Your task to perform on an android device: turn off sleep mode Image 0: 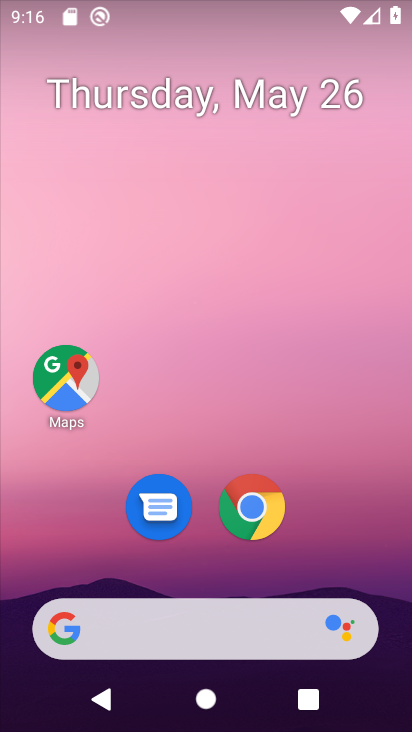
Step 0: drag from (363, 577) to (361, 279)
Your task to perform on an android device: turn off sleep mode Image 1: 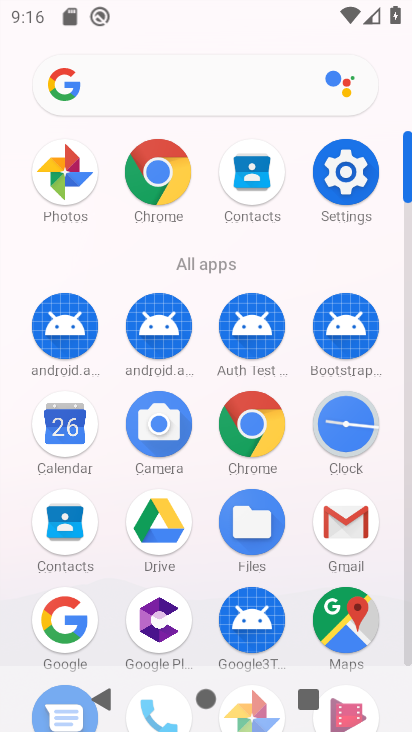
Step 1: click (355, 192)
Your task to perform on an android device: turn off sleep mode Image 2: 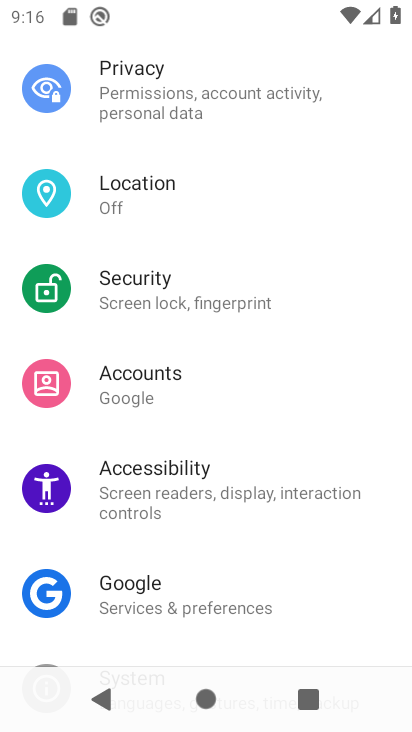
Step 2: drag from (355, 227) to (357, 362)
Your task to perform on an android device: turn off sleep mode Image 3: 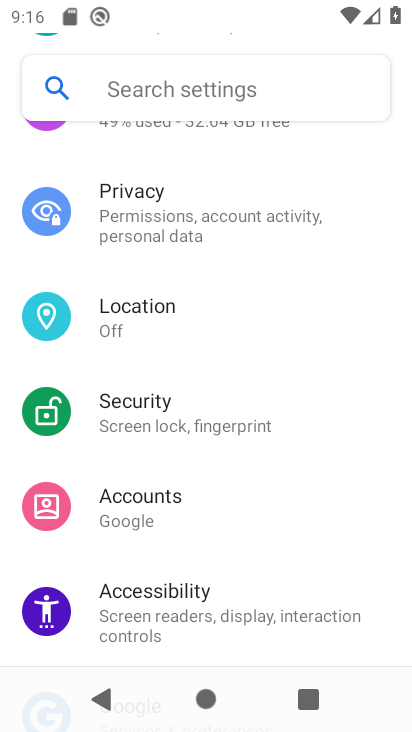
Step 3: drag from (364, 216) to (363, 338)
Your task to perform on an android device: turn off sleep mode Image 4: 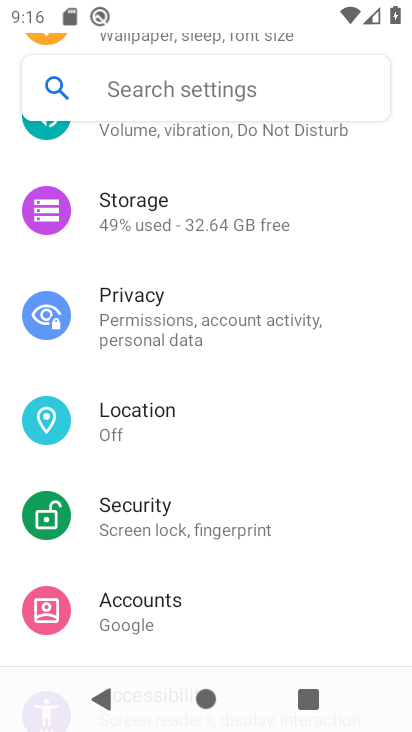
Step 4: drag from (353, 202) to (353, 322)
Your task to perform on an android device: turn off sleep mode Image 5: 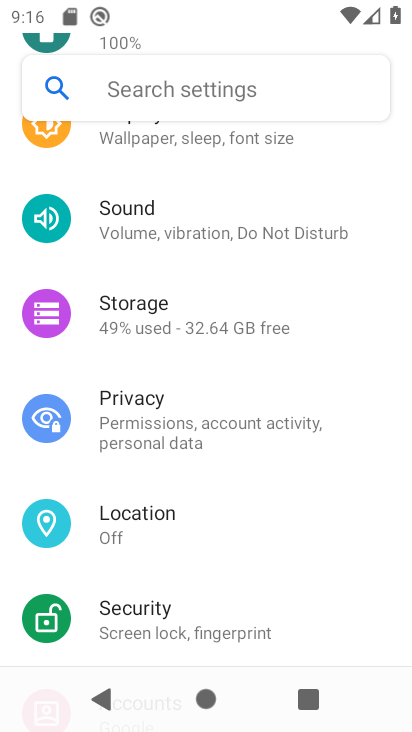
Step 5: drag from (367, 196) to (365, 323)
Your task to perform on an android device: turn off sleep mode Image 6: 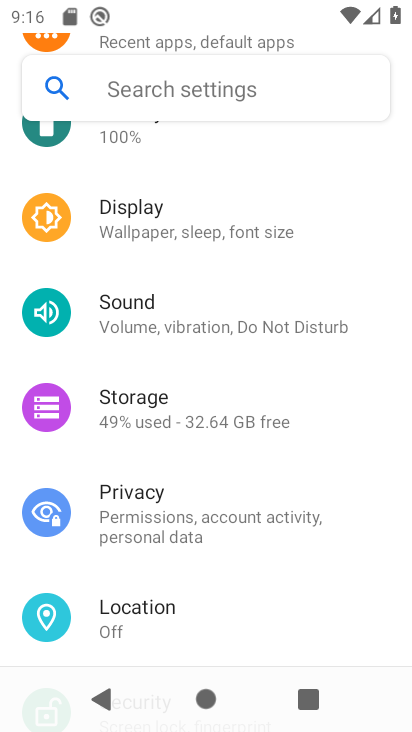
Step 6: drag from (361, 165) to (359, 297)
Your task to perform on an android device: turn off sleep mode Image 7: 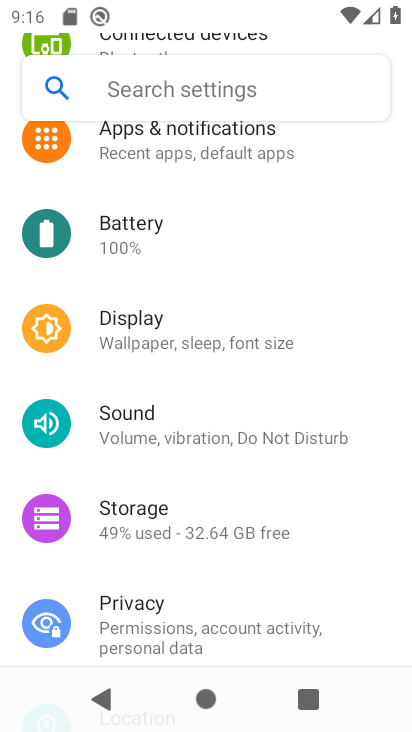
Step 7: drag from (356, 169) to (354, 267)
Your task to perform on an android device: turn off sleep mode Image 8: 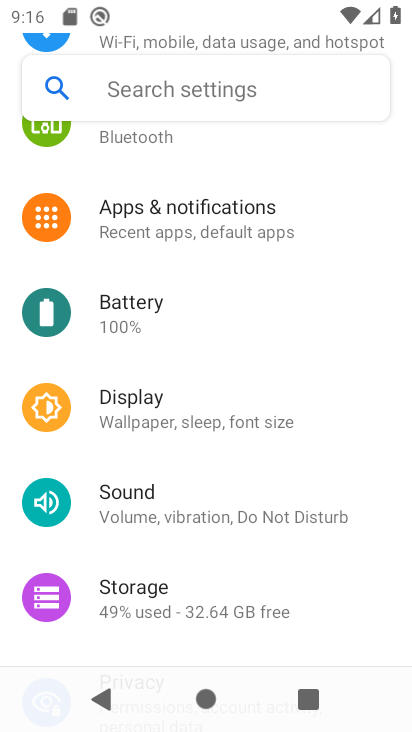
Step 8: drag from (354, 192) to (355, 345)
Your task to perform on an android device: turn off sleep mode Image 9: 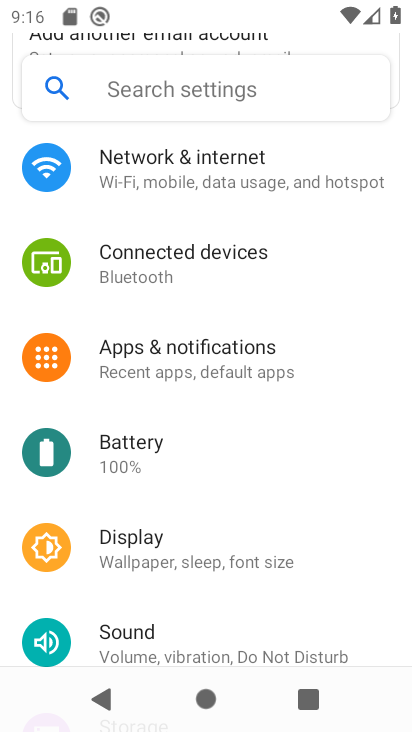
Step 9: drag from (331, 434) to (345, 308)
Your task to perform on an android device: turn off sleep mode Image 10: 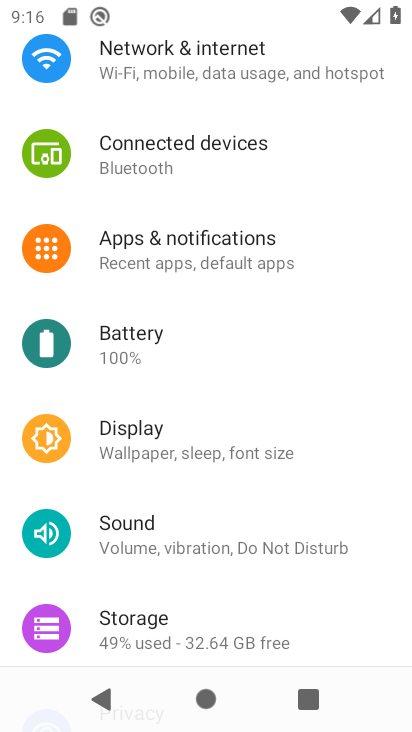
Step 10: click (307, 447)
Your task to perform on an android device: turn off sleep mode Image 11: 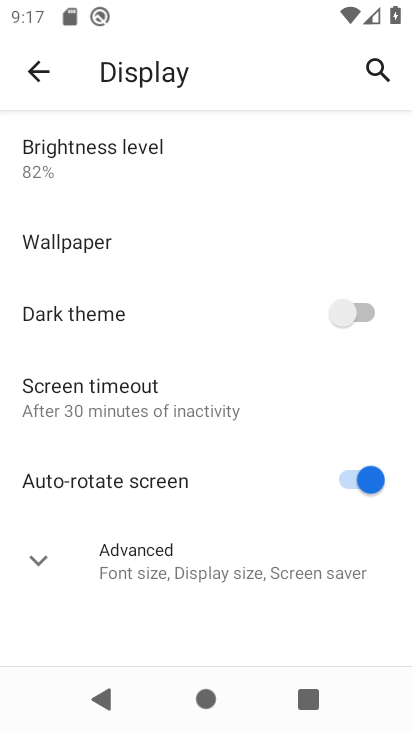
Step 11: task complete